Your task to perform on an android device: turn on the 12-hour format for clock Image 0: 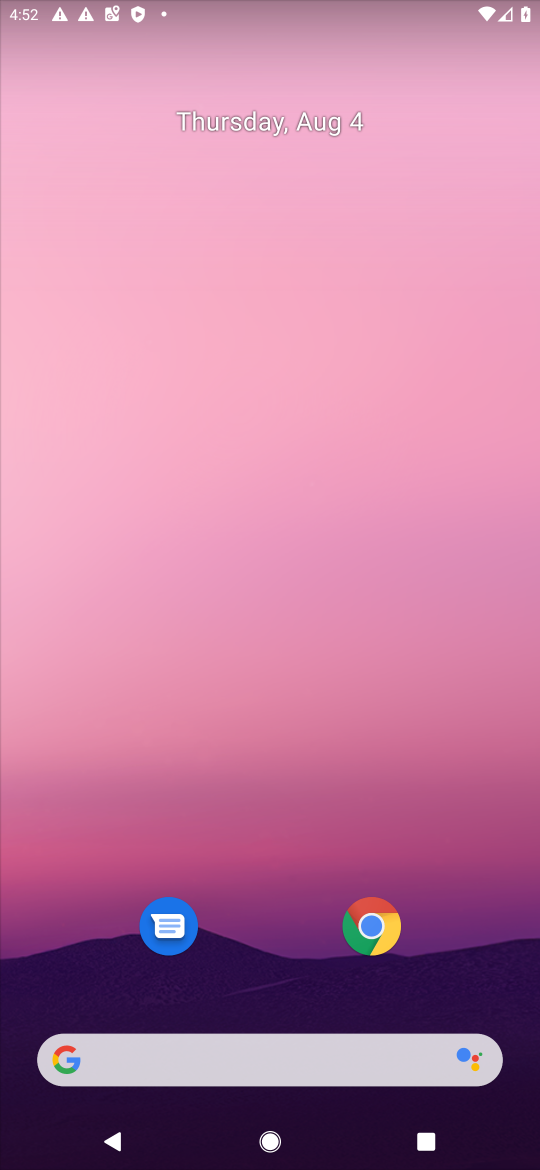
Step 0: press home button
Your task to perform on an android device: turn on the 12-hour format for clock Image 1: 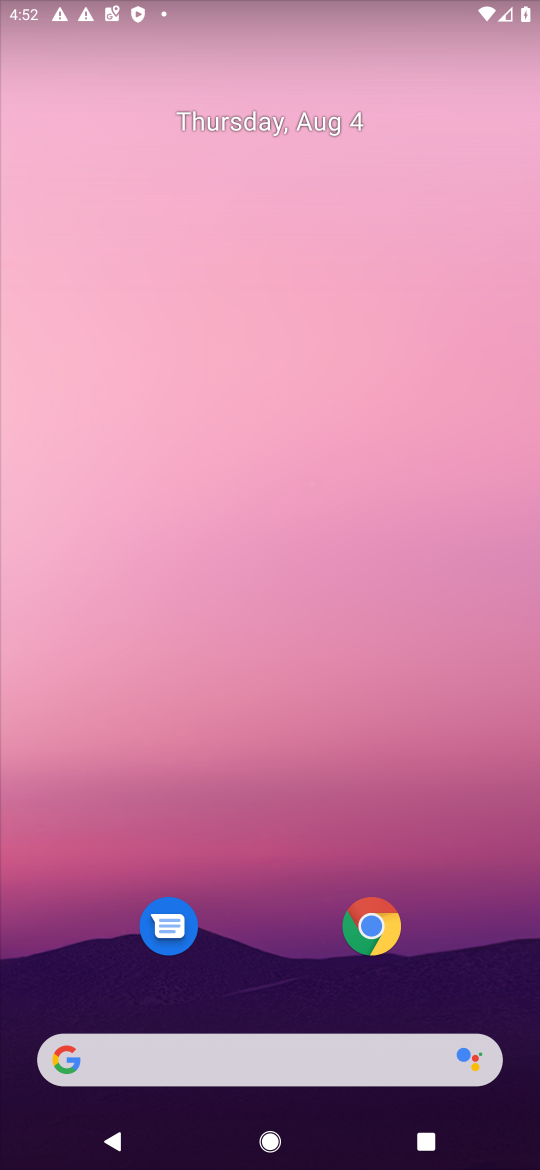
Step 1: drag from (275, 999) to (448, 178)
Your task to perform on an android device: turn on the 12-hour format for clock Image 2: 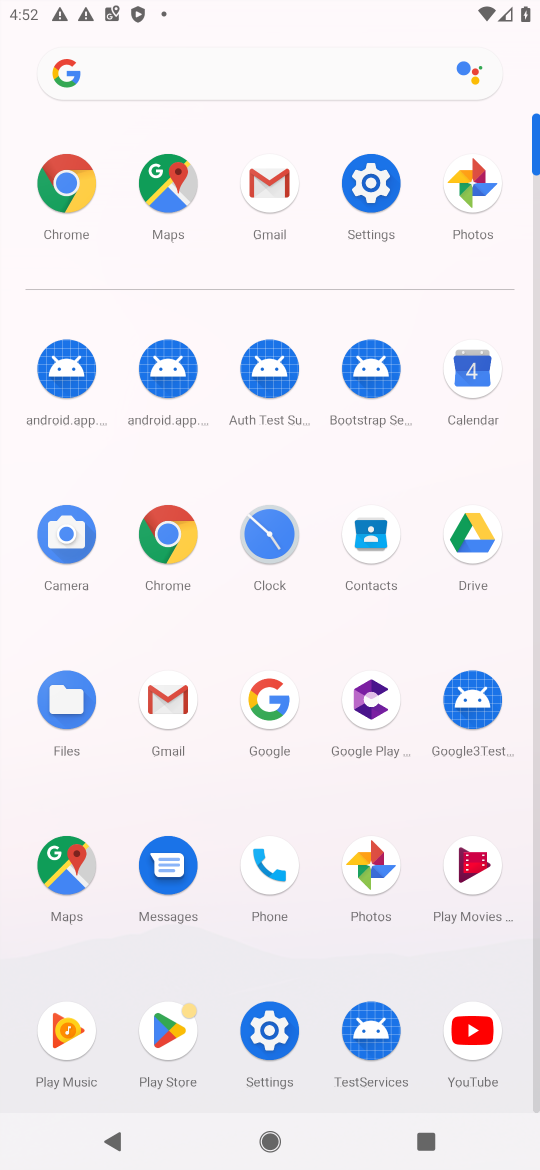
Step 2: click (383, 204)
Your task to perform on an android device: turn on the 12-hour format for clock Image 3: 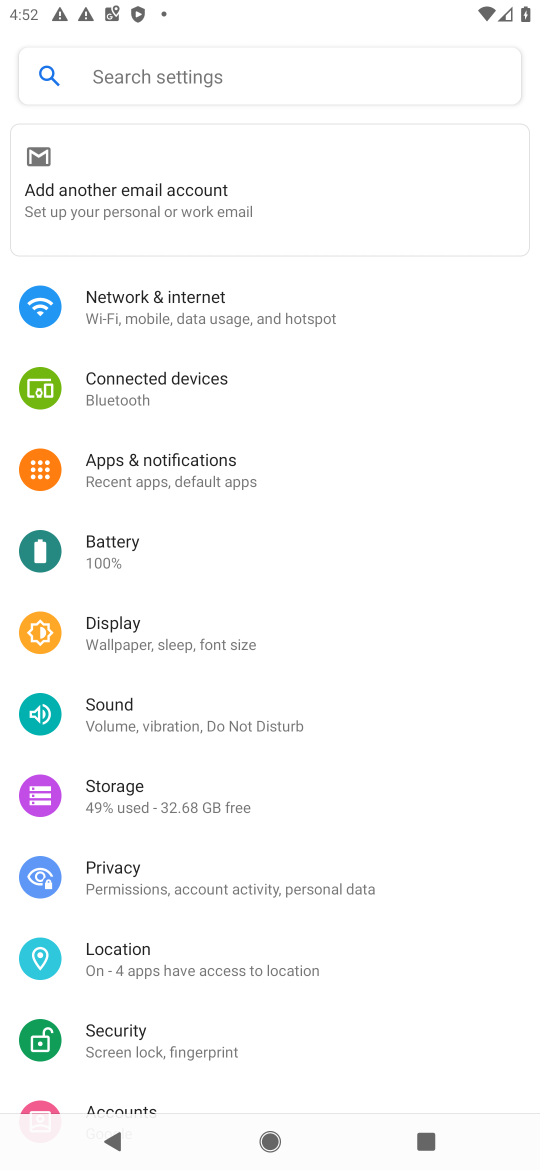
Step 3: drag from (454, 1026) to (277, 204)
Your task to perform on an android device: turn on the 12-hour format for clock Image 4: 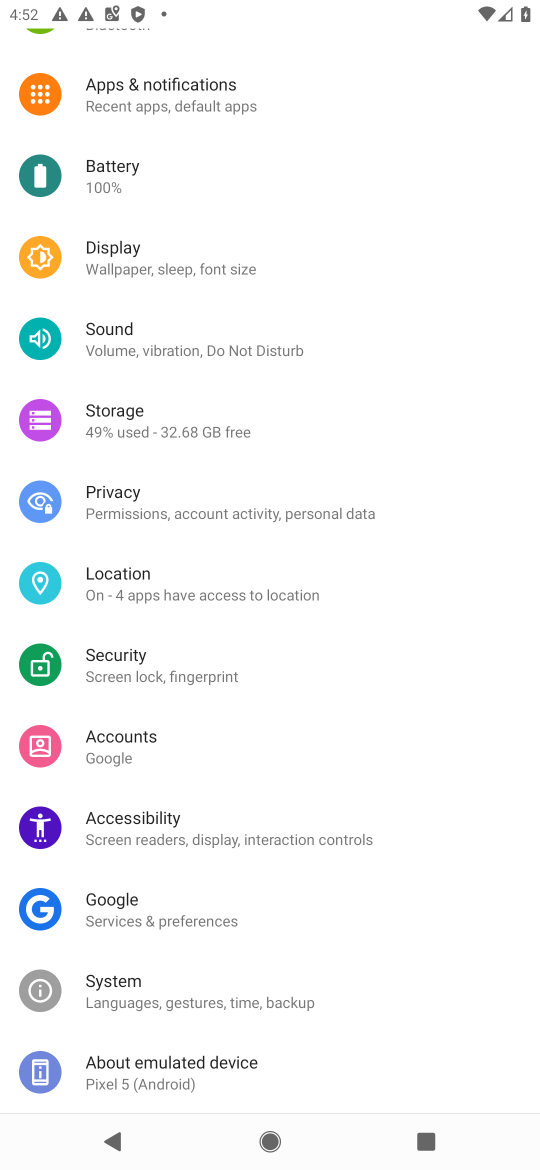
Step 4: click (121, 982)
Your task to perform on an android device: turn on the 12-hour format for clock Image 5: 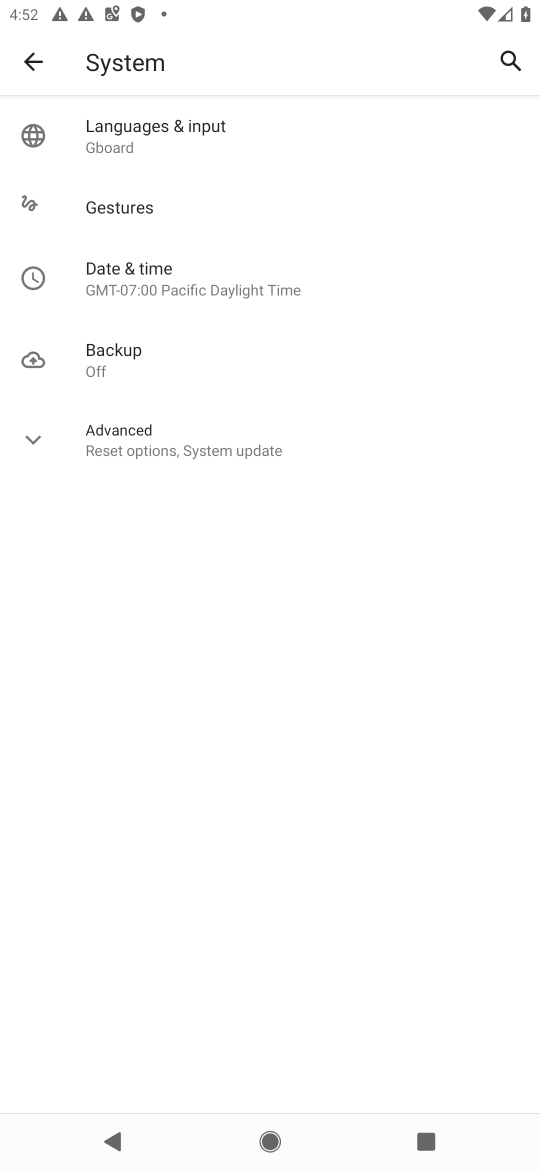
Step 5: click (113, 266)
Your task to perform on an android device: turn on the 12-hour format for clock Image 6: 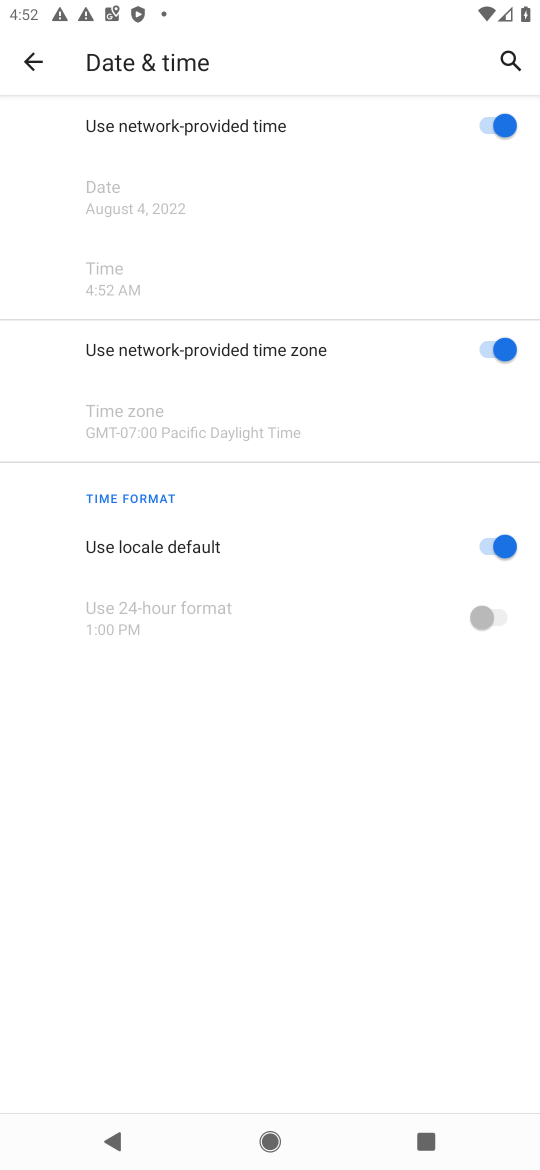
Step 6: click (472, 609)
Your task to perform on an android device: turn on the 12-hour format for clock Image 7: 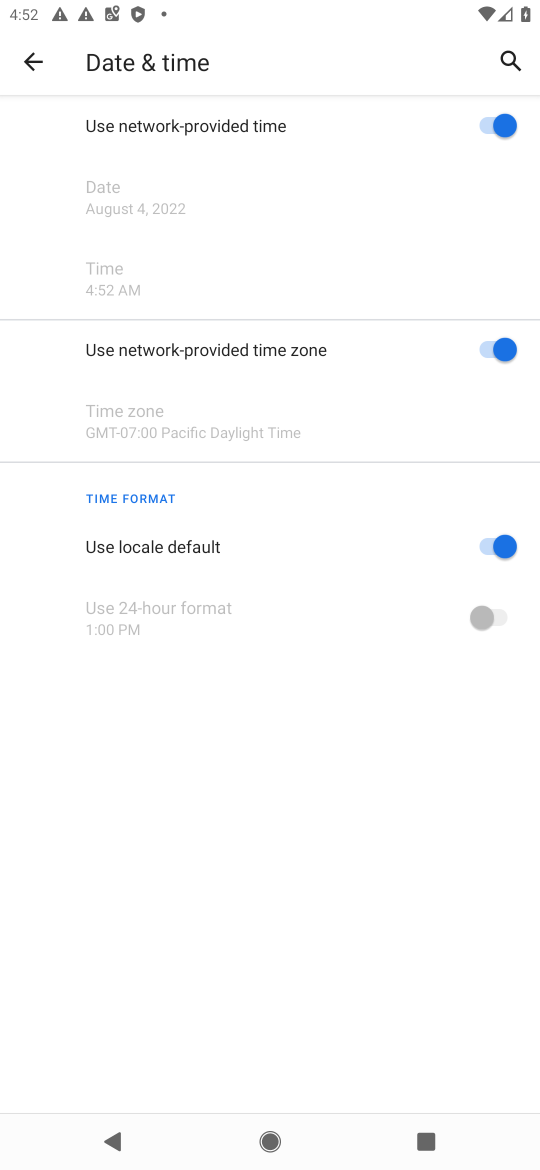
Step 7: click (497, 550)
Your task to perform on an android device: turn on the 12-hour format for clock Image 8: 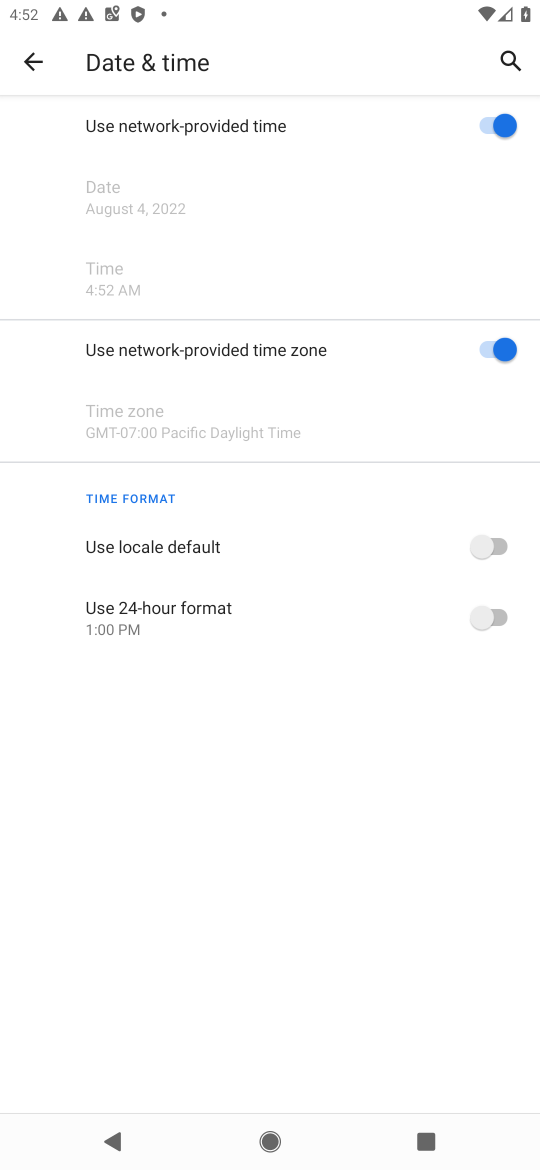
Step 8: task complete